Your task to perform on an android device: Do I have any events tomorrow? Image 0: 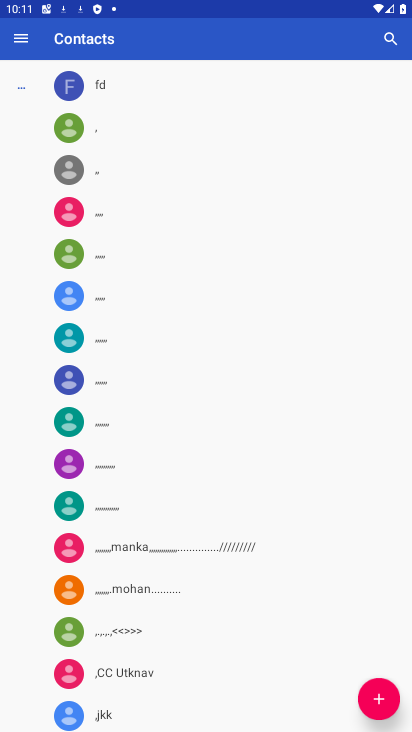
Step 0: press home button
Your task to perform on an android device: Do I have any events tomorrow? Image 1: 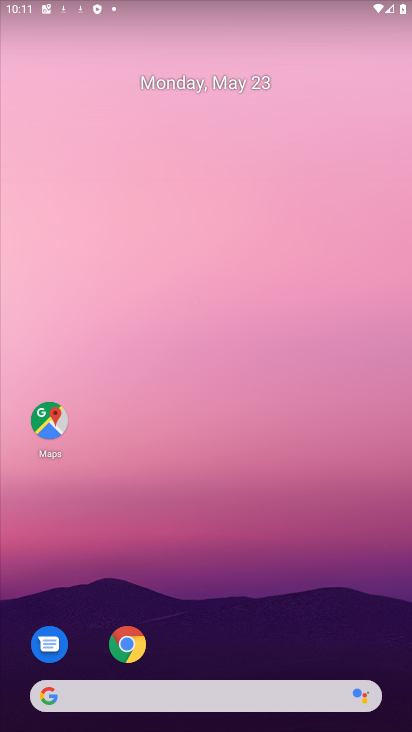
Step 1: drag from (238, 715) to (175, 284)
Your task to perform on an android device: Do I have any events tomorrow? Image 2: 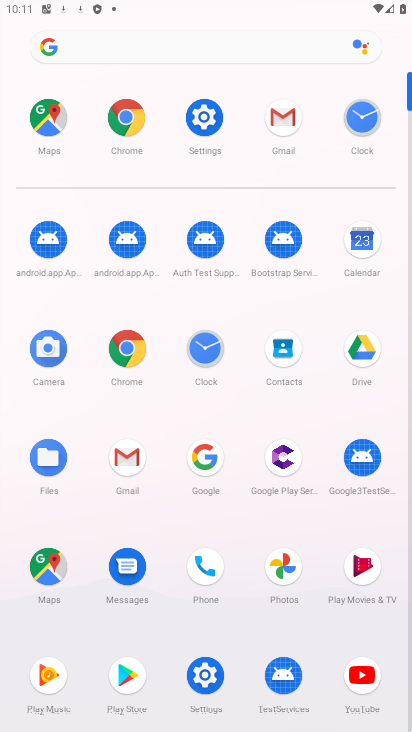
Step 2: click (340, 243)
Your task to perform on an android device: Do I have any events tomorrow? Image 3: 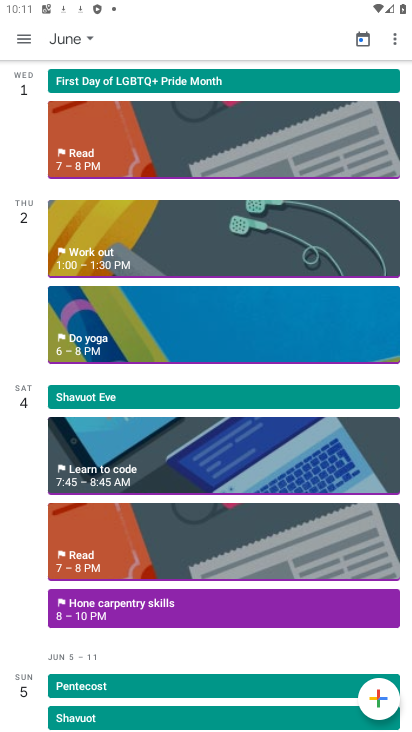
Step 3: click (32, 47)
Your task to perform on an android device: Do I have any events tomorrow? Image 4: 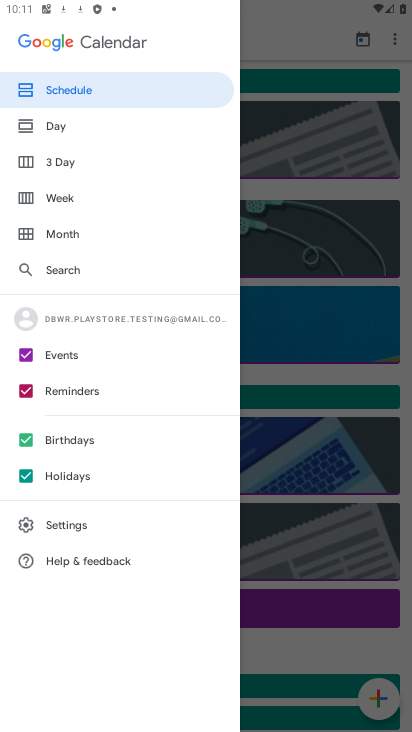
Step 4: click (82, 238)
Your task to perform on an android device: Do I have any events tomorrow? Image 5: 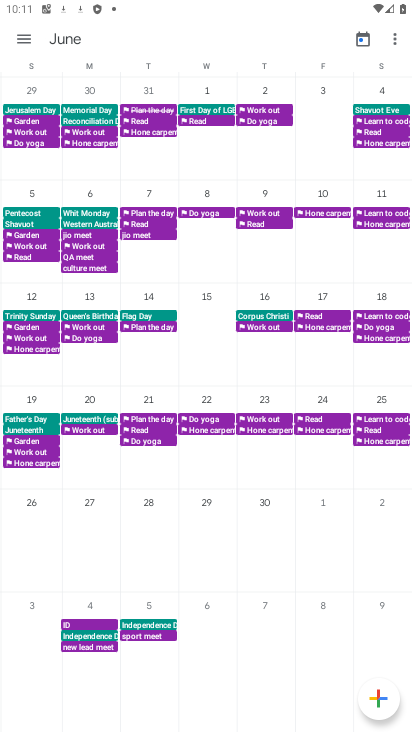
Step 5: drag from (42, 384) to (408, 257)
Your task to perform on an android device: Do I have any events tomorrow? Image 6: 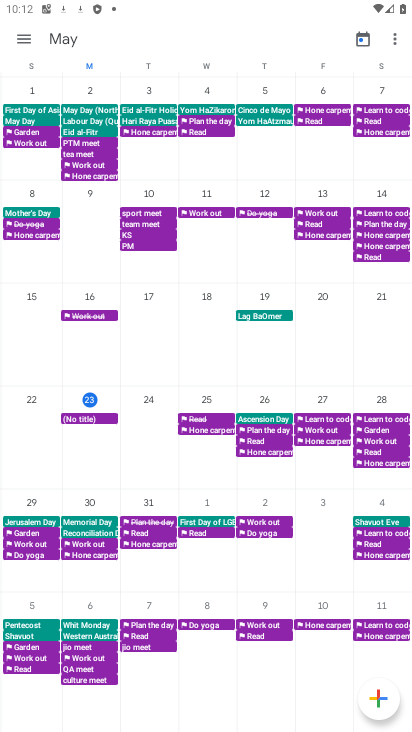
Step 6: click (24, 44)
Your task to perform on an android device: Do I have any events tomorrow? Image 7: 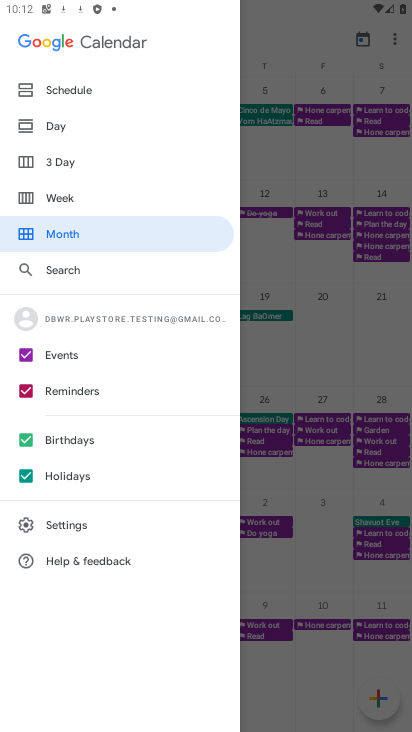
Step 7: click (64, 88)
Your task to perform on an android device: Do I have any events tomorrow? Image 8: 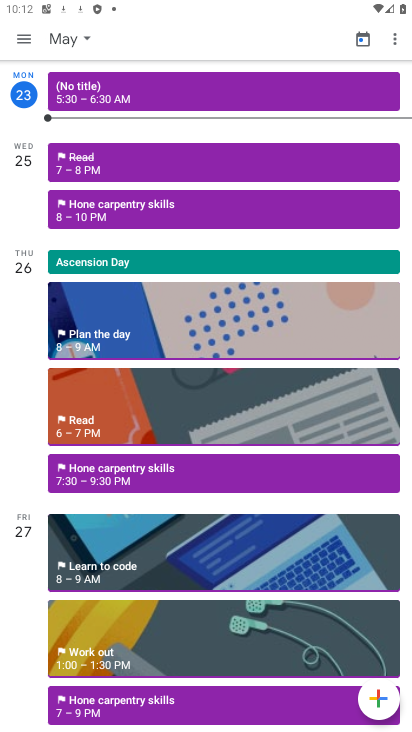
Step 8: task complete